Your task to perform on an android device: Show me popular games on the Play Store Image 0: 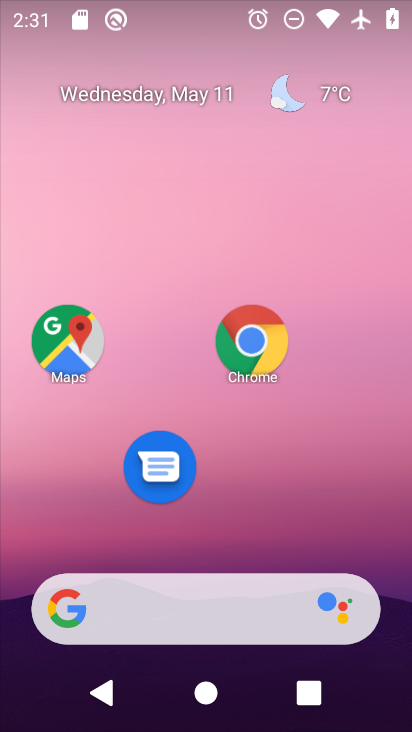
Step 0: drag from (146, 613) to (274, 123)
Your task to perform on an android device: Show me popular games on the Play Store Image 1: 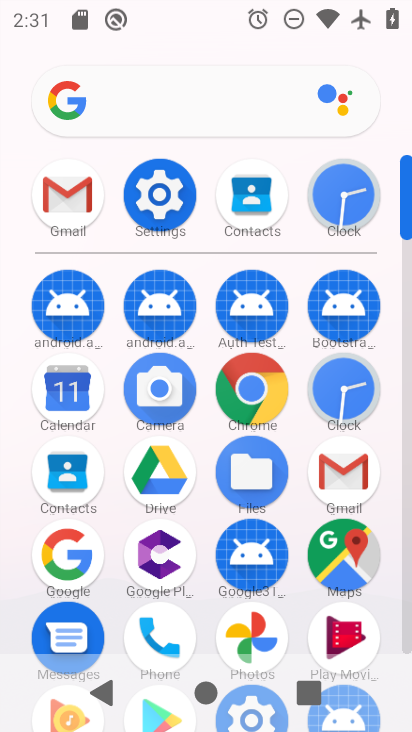
Step 1: drag from (205, 590) to (270, 179)
Your task to perform on an android device: Show me popular games on the Play Store Image 2: 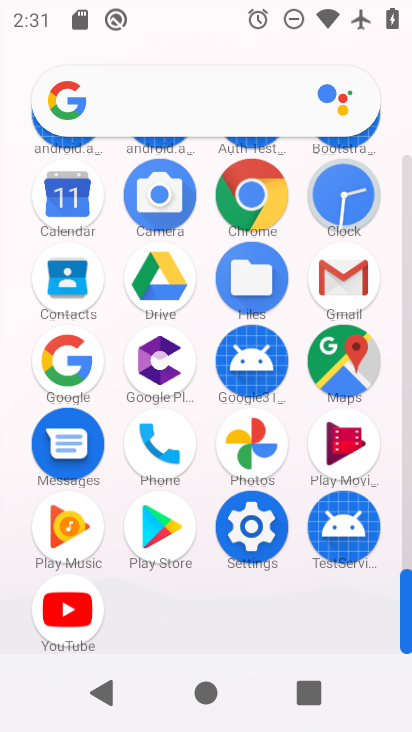
Step 2: click (162, 527)
Your task to perform on an android device: Show me popular games on the Play Store Image 3: 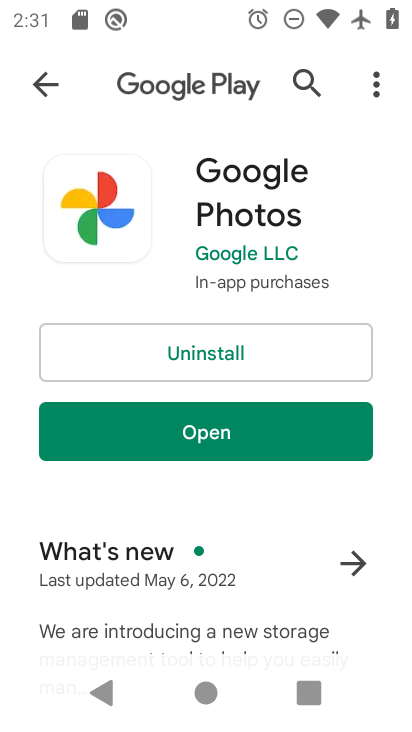
Step 3: click (51, 83)
Your task to perform on an android device: Show me popular games on the Play Store Image 4: 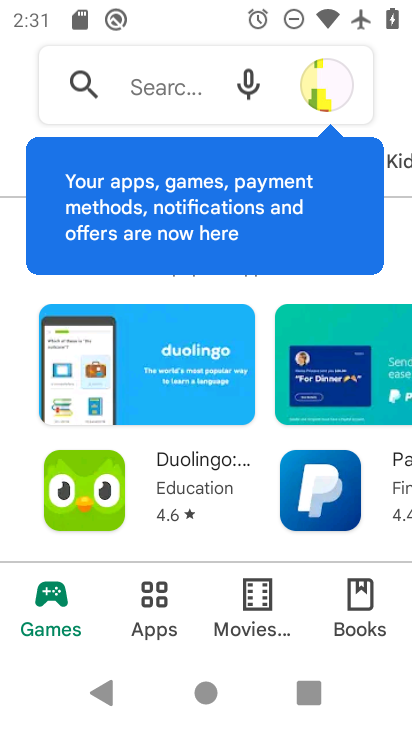
Step 4: click (53, 601)
Your task to perform on an android device: Show me popular games on the Play Store Image 5: 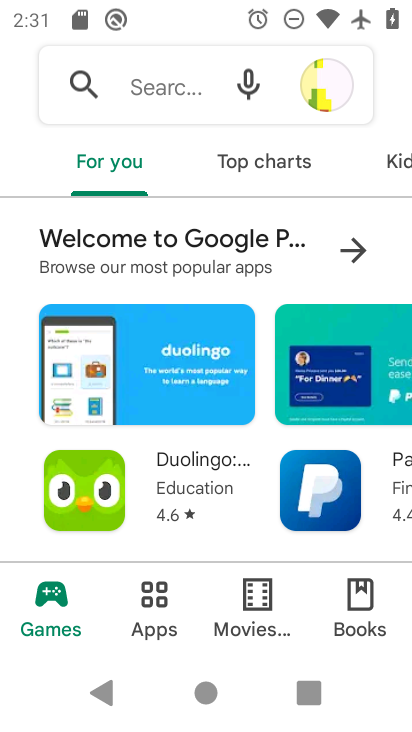
Step 5: drag from (159, 476) to (359, 32)
Your task to perform on an android device: Show me popular games on the Play Store Image 6: 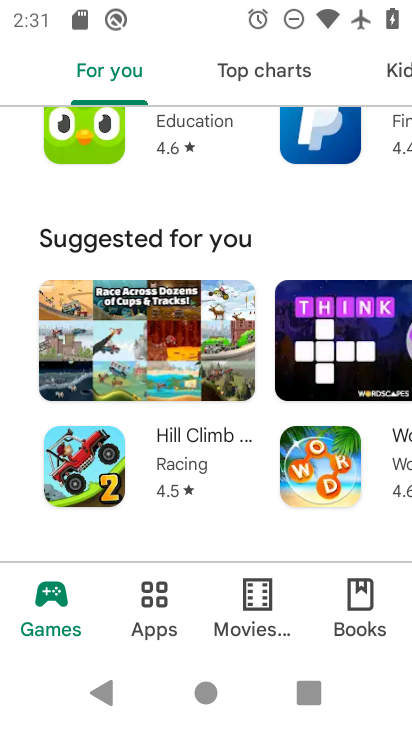
Step 6: drag from (140, 519) to (273, 93)
Your task to perform on an android device: Show me popular games on the Play Store Image 7: 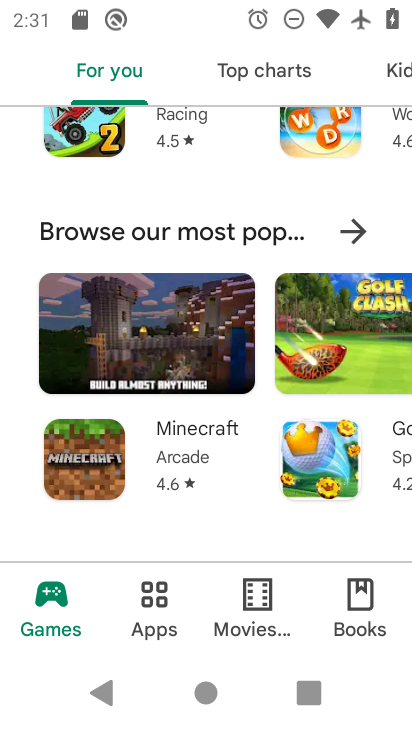
Step 7: click (264, 235)
Your task to perform on an android device: Show me popular games on the Play Store Image 8: 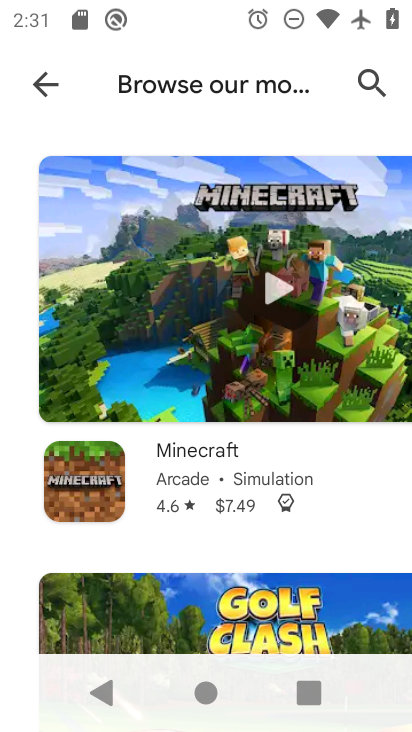
Step 8: task complete